Your task to perform on an android device: Open sound settings Image 0: 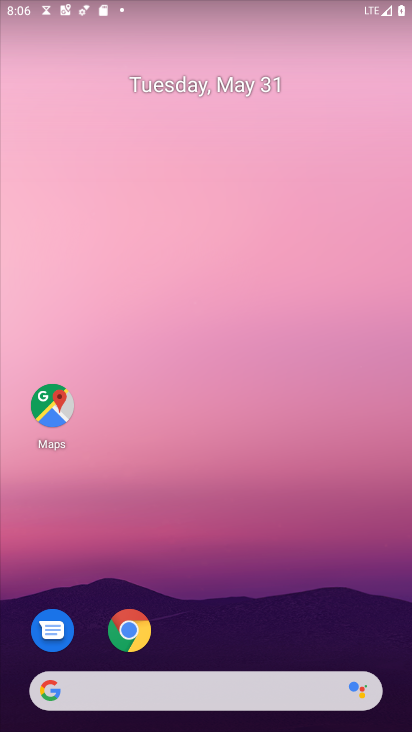
Step 0: drag from (257, 614) to (225, 271)
Your task to perform on an android device: Open sound settings Image 1: 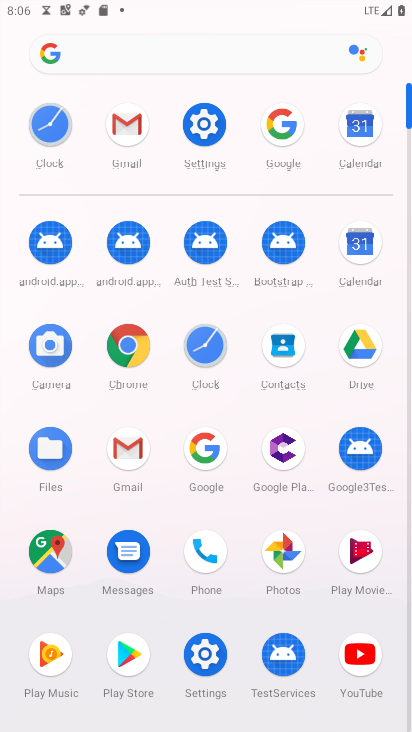
Step 1: click (204, 122)
Your task to perform on an android device: Open sound settings Image 2: 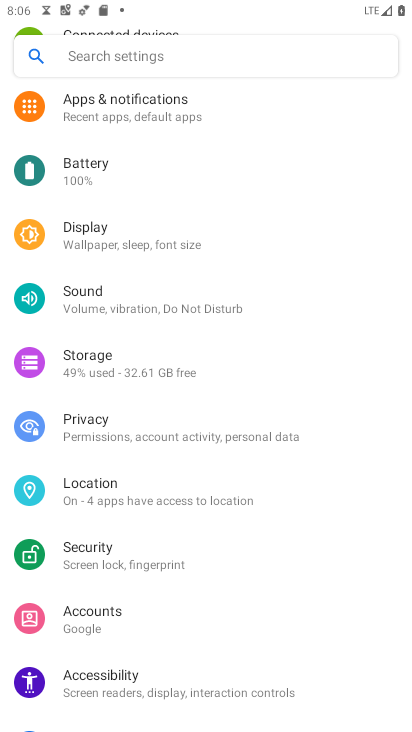
Step 2: drag from (158, 208) to (152, 289)
Your task to perform on an android device: Open sound settings Image 3: 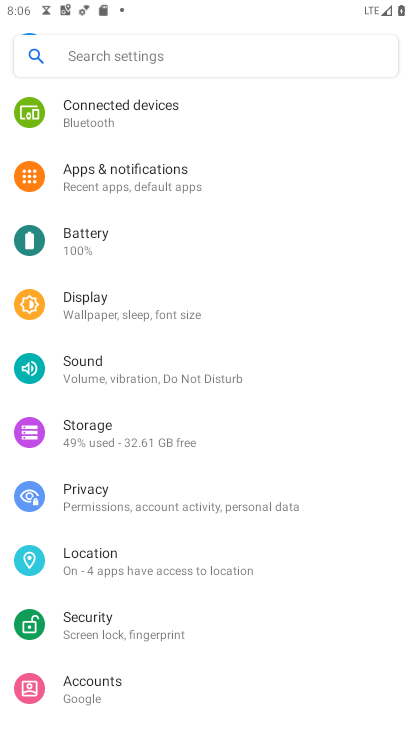
Step 3: click (112, 383)
Your task to perform on an android device: Open sound settings Image 4: 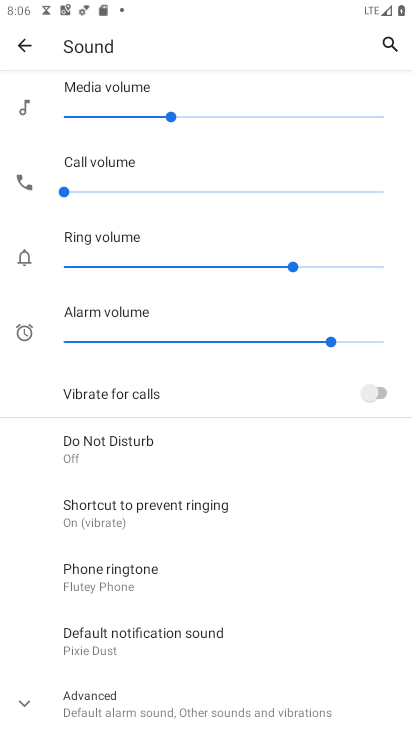
Step 4: task complete